Your task to perform on an android device: Open Amazon Image 0: 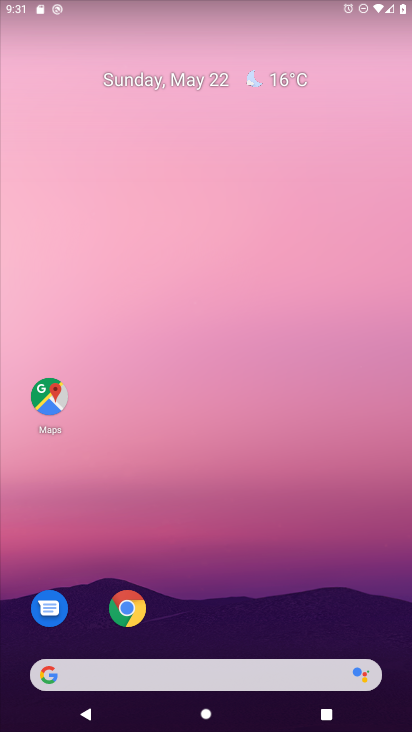
Step 0: click (128, 608)
Your task to perform on an android device: Open Amazon Image 1: 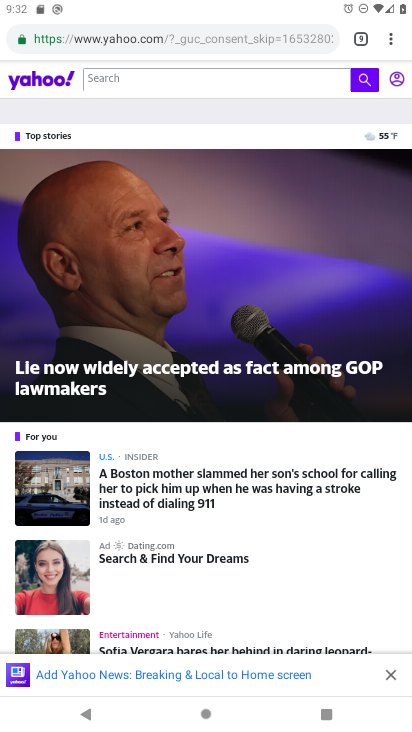
Step 1: click (392, 43)
Your task to perform on an android device: Open Amazon Image 2: 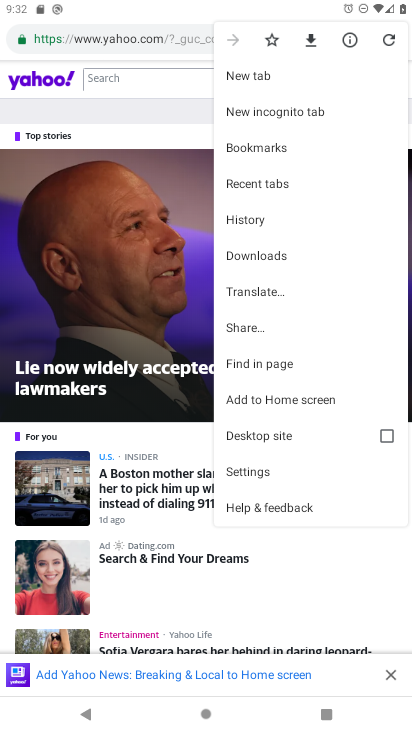
Step 2: click (249, 74)
Your task to perform on an android device: Open Amazon Image 3: 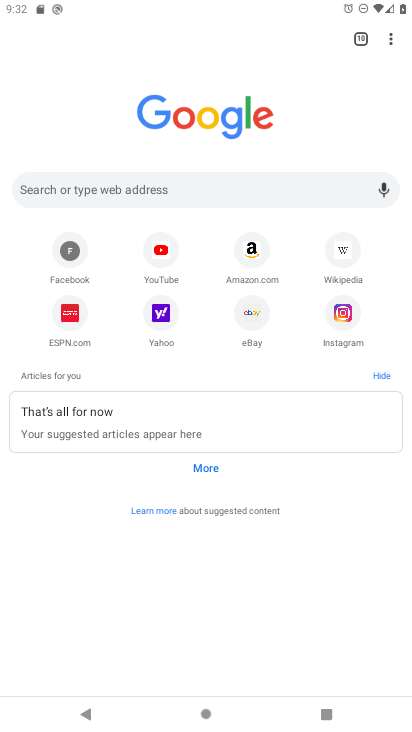
Step 3: click (254, 248)
Your task to perform on an android device: Open Amazon Image 4: 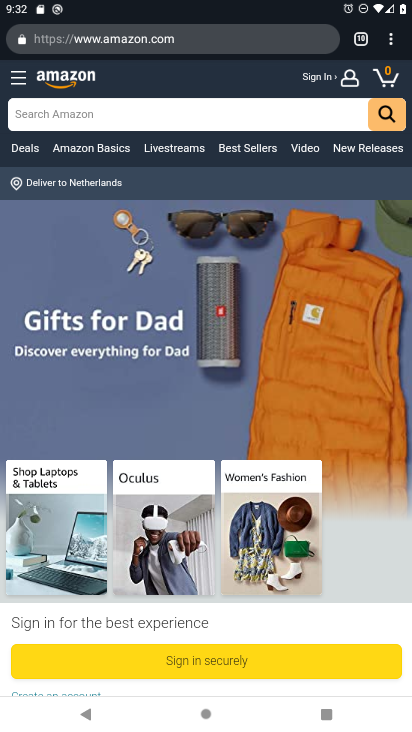
Step 4: task complete